Your task to perform on an android device: move an email to a new category in the gmail app Image 0: 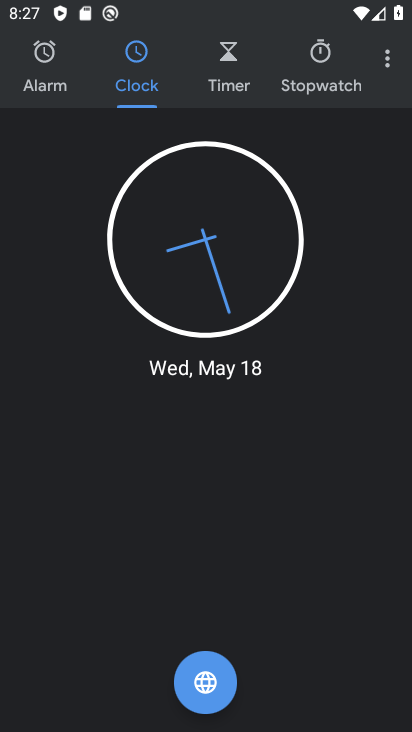
Step 0: press home button
Your task to perform on an android device: move an email to a new category in the gmail app Image 1: 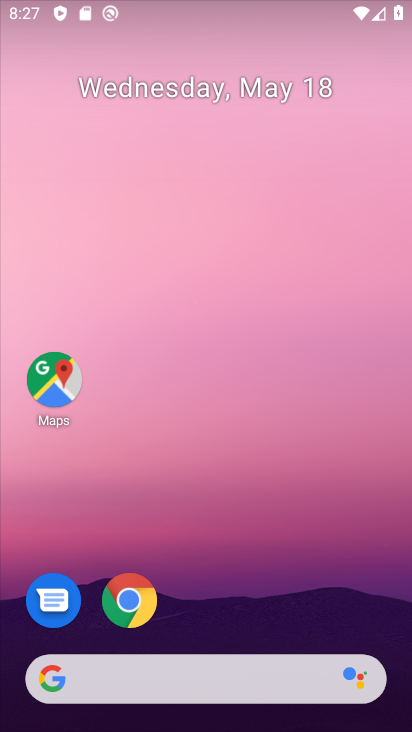
Step 1: drag from (65, 459) to (241, 164)
Your task to perform on an android device: move an email to a new category in the gmail app Image 2: 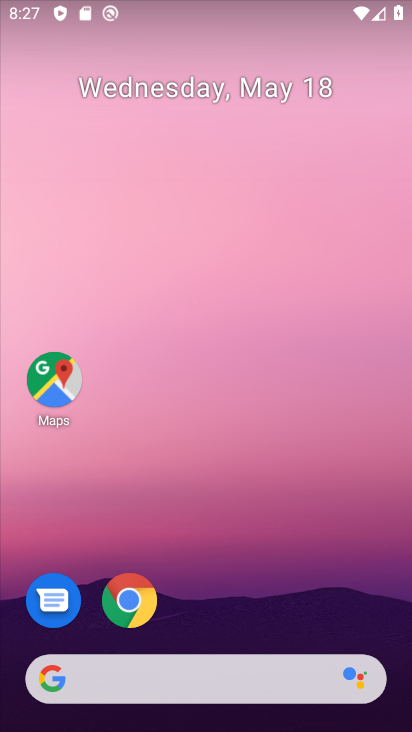
Step 2: drag from (20, 557) to (245, 156)
Your task to perform on an android device: move an email to a new category in the gmail app Image 3: 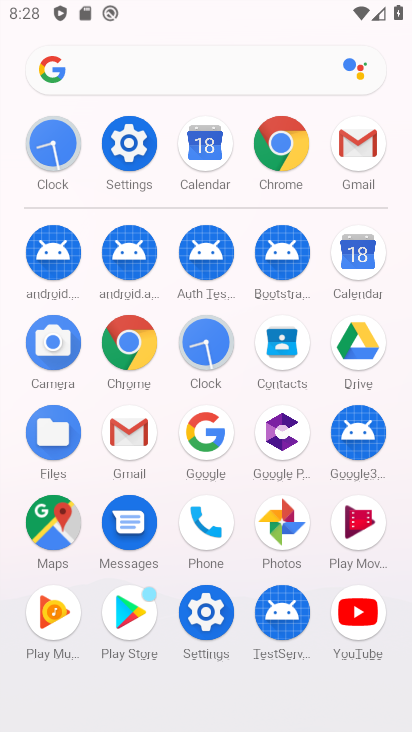
Step 3: click (120, 445)
Your task to perform on an android device: move an email to a new category in the gmail app Image 4: 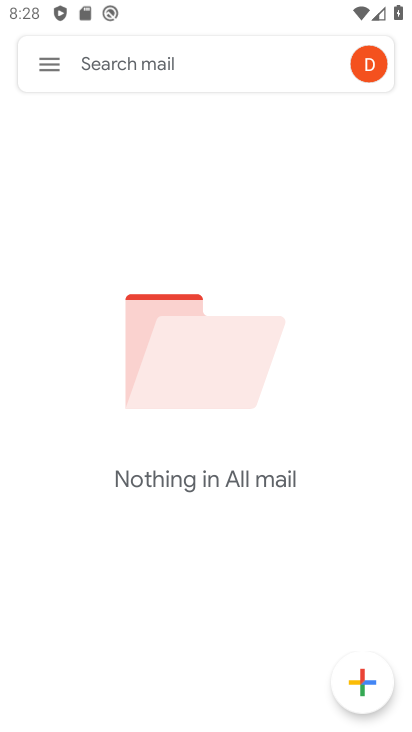
Step 4: task complete